Your task to perform on an android device: Open ESPN.com Image 0: 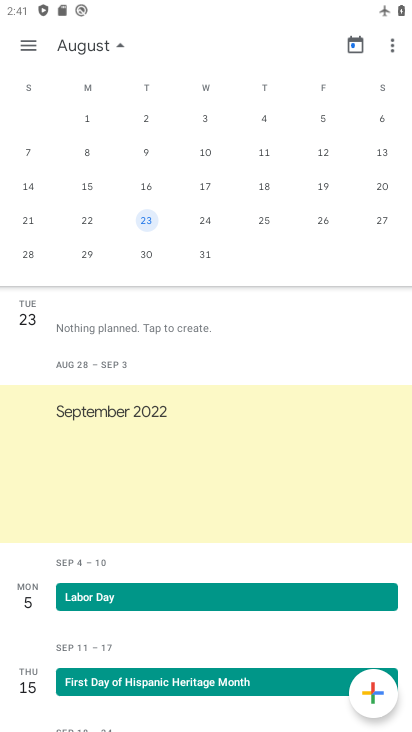
Step 0: press back button
Your task to perform on an android device: Open ESPN.com Image 1: 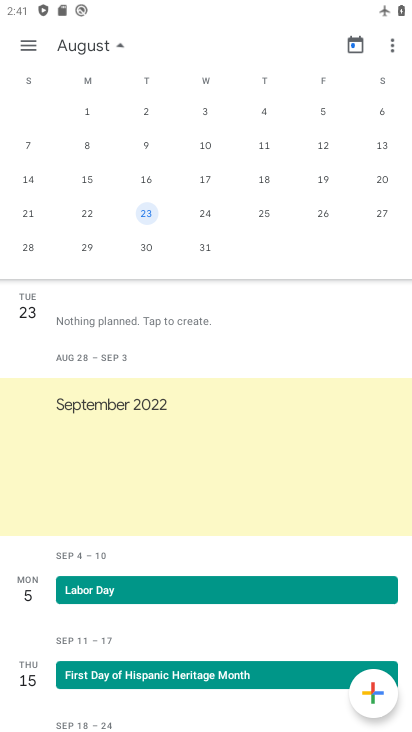
Step 1: press back button
Your task to perform on an android device: Open ESPN.com Image 2: 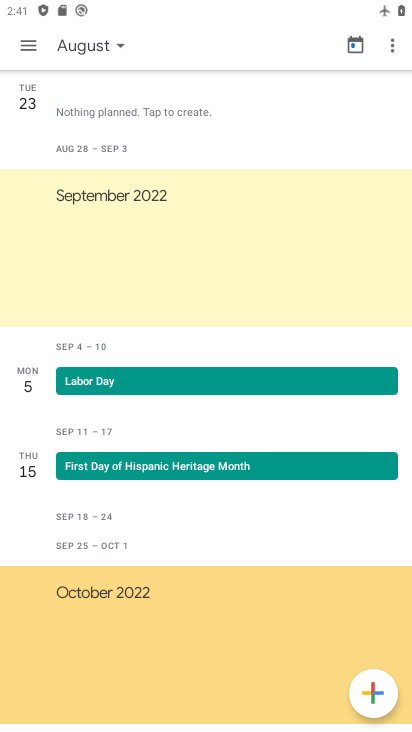
Step 2: press back button
Your task to perform on an android device: Open ESPN.com Image 3: 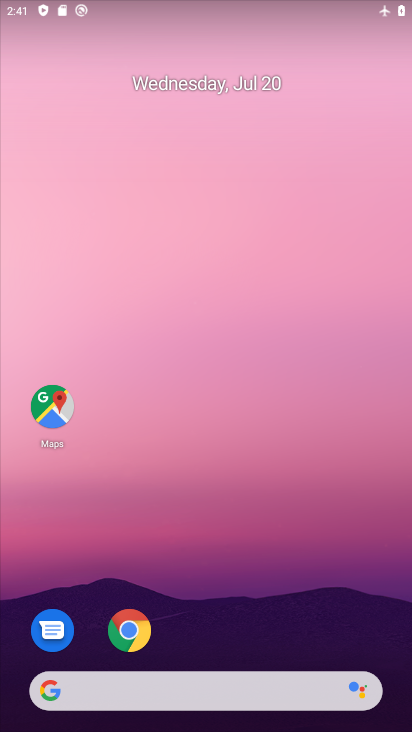
Step 3: drag from (286, 621) to (169, 133)
Your task to perform on an android device: Open ESPN.com Image 4: 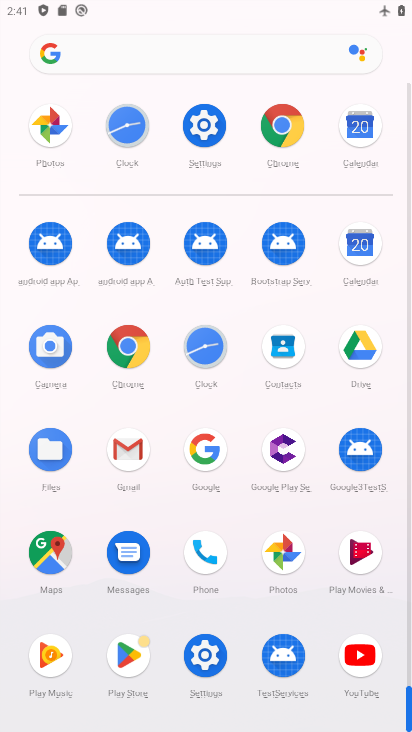
Step 4: click (289, 132)
Your task to perform on an android device: Open ESPN.com Image 5: 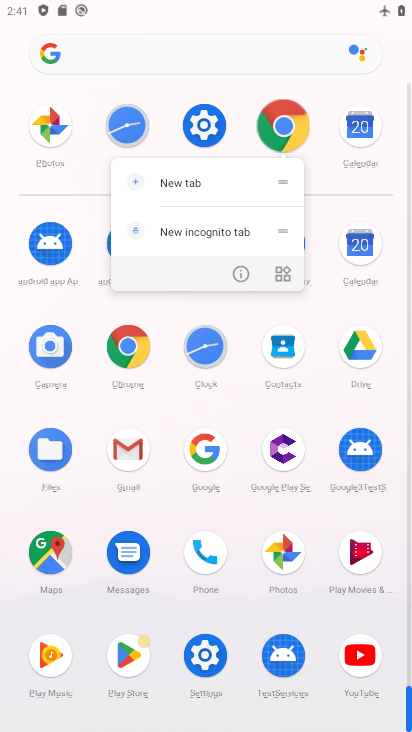
Step 5: click (286, 132)
Your task to perform on an android device: Open ESPN.com Image 6: 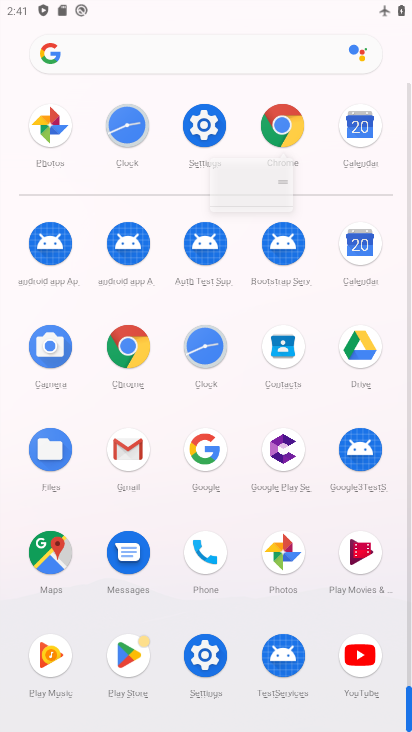
Step 6: click (267, 117)
Your task to perform on an android device: Open ESPN.com Image 7: 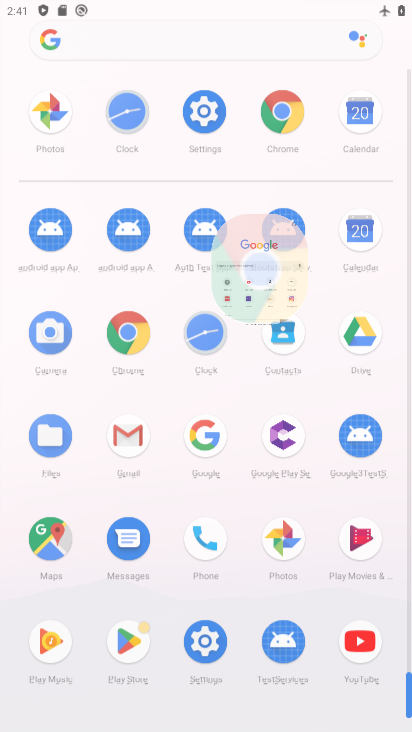
Step 7: click (268, 131)
Your task to perform on an android device: Open ESPN.com Image 8: 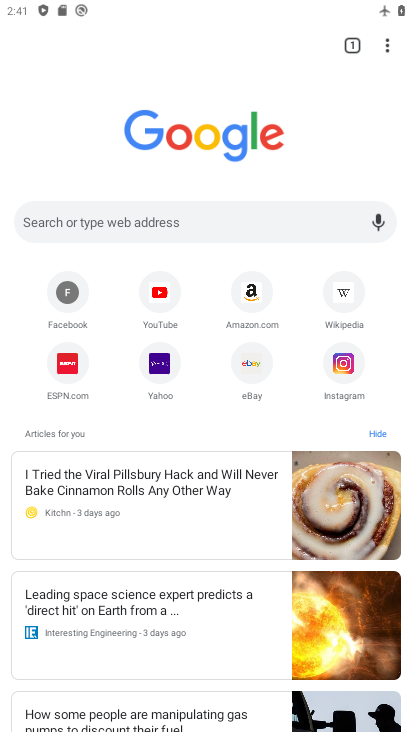
Step 8: click (61, 367)
Your task to perform on an android device: Open ESPN.com Image 9: 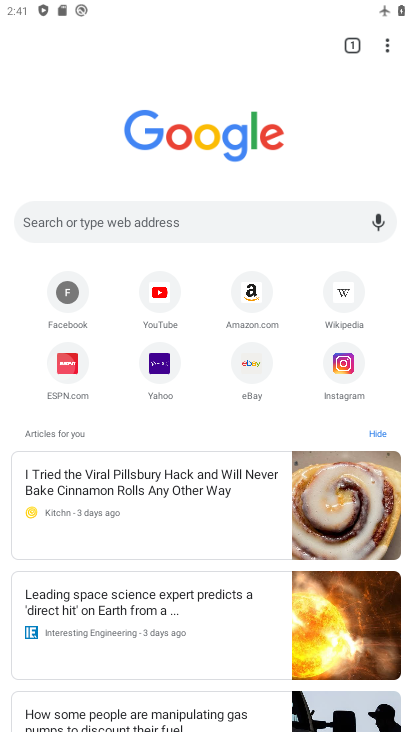
Step 9: click (61, 361)
Your task to perform on an android device: Open ESPN.com Image 10: 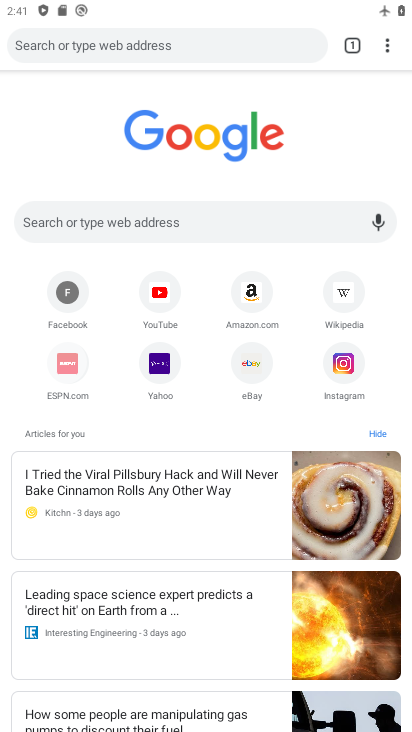
Step 10: click (67, 363)
Your task to perform on an android device: Open ESPN.com Image 11: 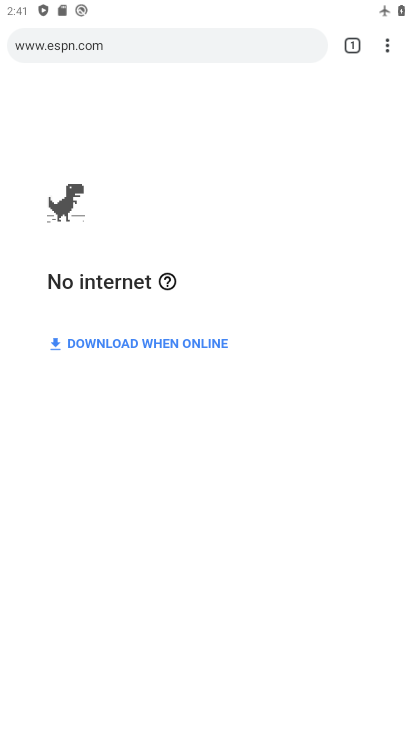
Step 11: click (388, 52)
Your task to perform on an android device: Open ESPN.com Image 12: 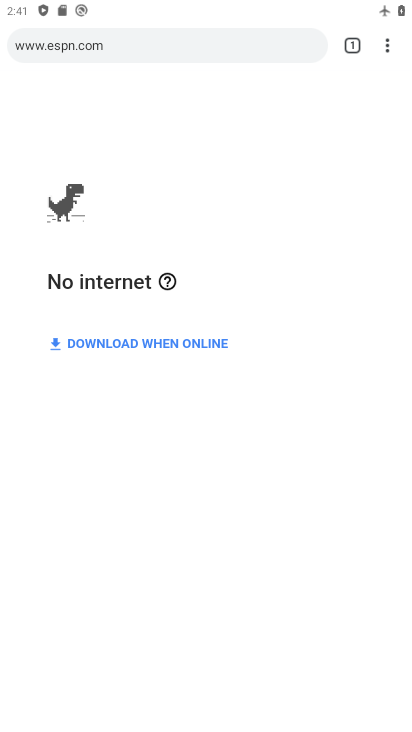
Step 12: click (214, 88)
Your task to perform on an android device: Open ESPN.com Image 13: 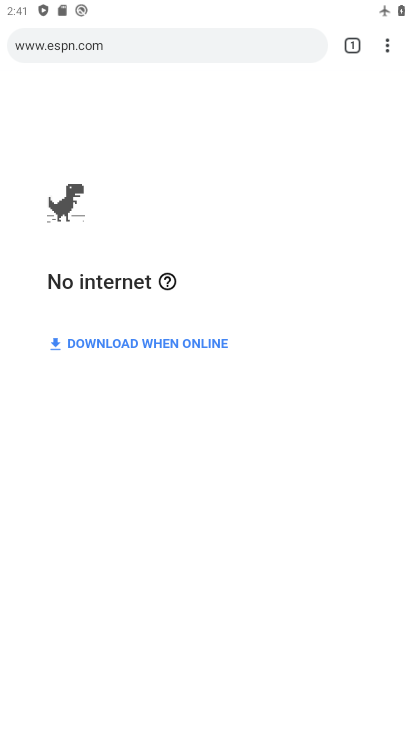
Step 13: task complete